Your task to perform on an android device: Do I have any events this weekend? Image 0: 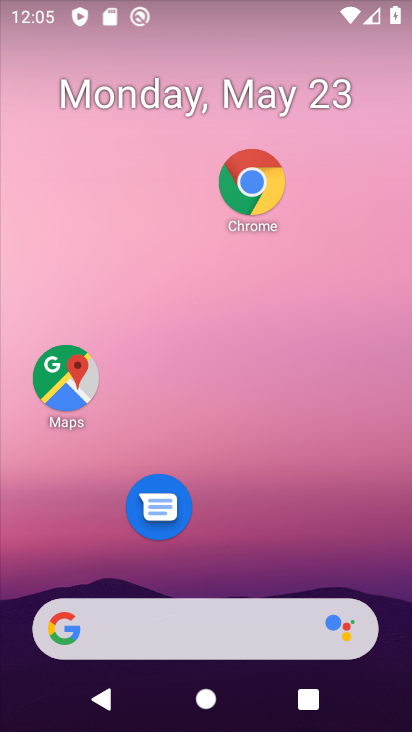
Step 0: drag from (270, 662) to (210, 91)
Your task to perform on an android device: Do I have any events this weekend? Image 1: 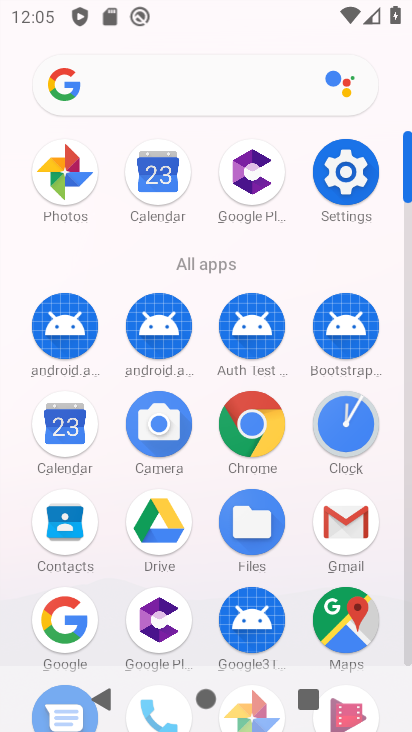
Step 1: click (56, 417)
Your task to perform on an android device: Do I have any events this weekend? Image 2: 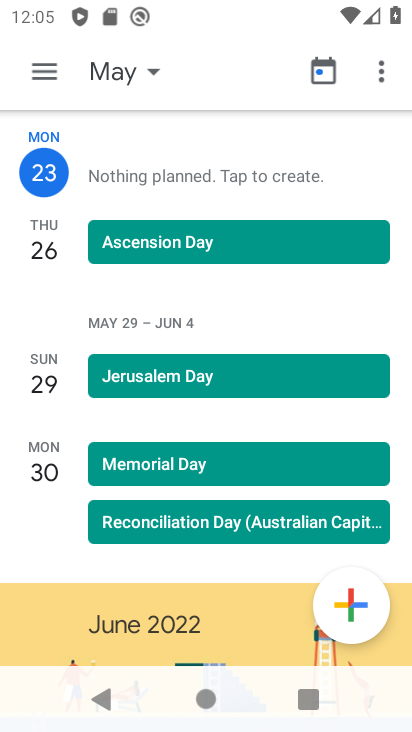
Step 2: task complete